Your task to perform on an android device: search for starred emails in the gmail app Image 0: 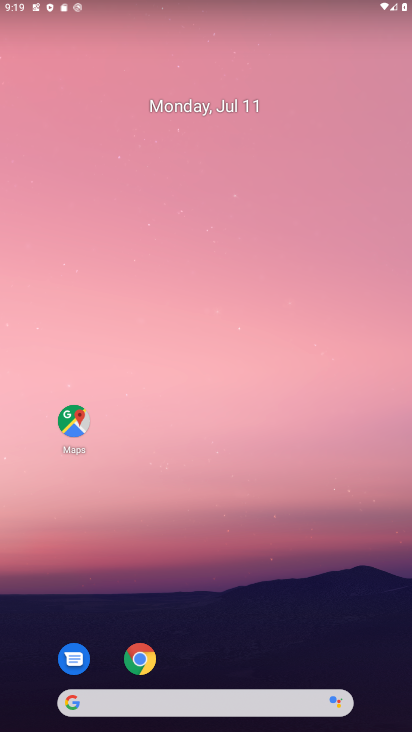
Step 0: drag from (221, 715) to (221, 254)
Your task to perform on an android device: search for starred emails in the gmail app Image 1: 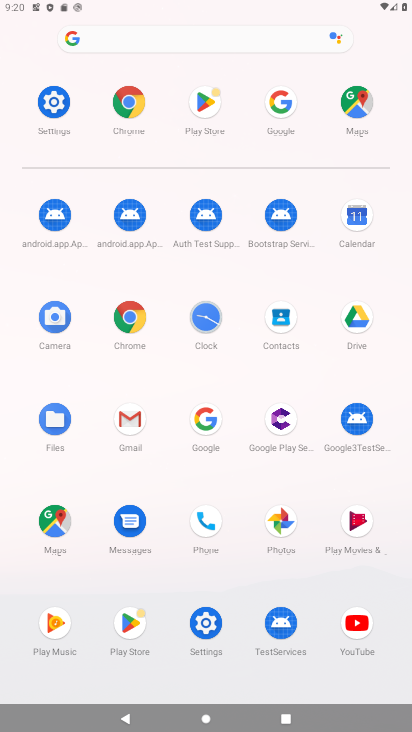
Step 1: click (132, 422)
Your task to perform on an android device: search for starred emails in the gmail app Image 2: 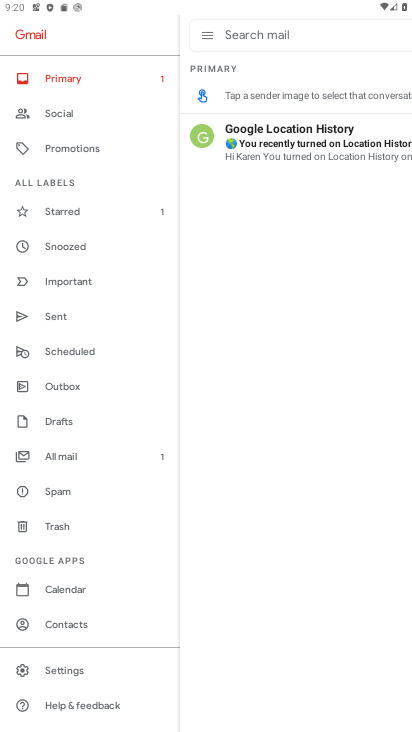
Step 2: click (71, 212)
Your task to perform on an android device: search for starred emails in the gmail app Image 3: 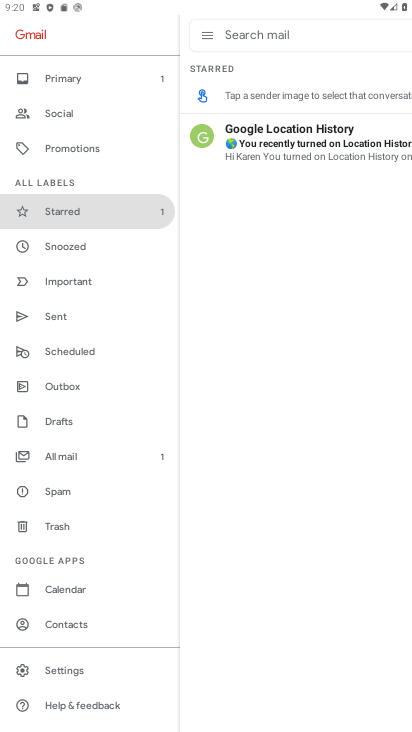
Step 3: click (71, 212)
Your task to perform on an android device: search for starred emails in the gmail app Image 4: 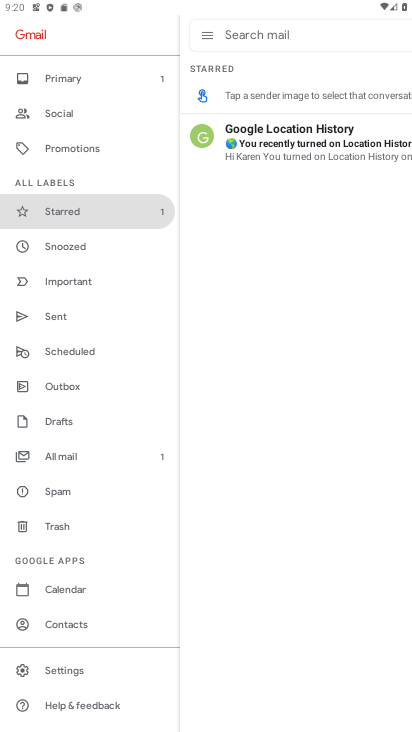
Step 4: task complete